Your task to perform on an android device: toggle javascript in the chrome app Image 0: 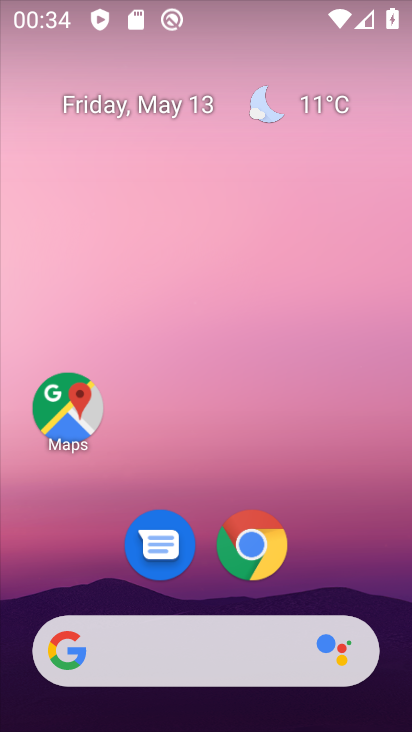
Step 0: click (260, 551)
Your task to perform on an android device: toggle javascript in the chrome app Image 1: 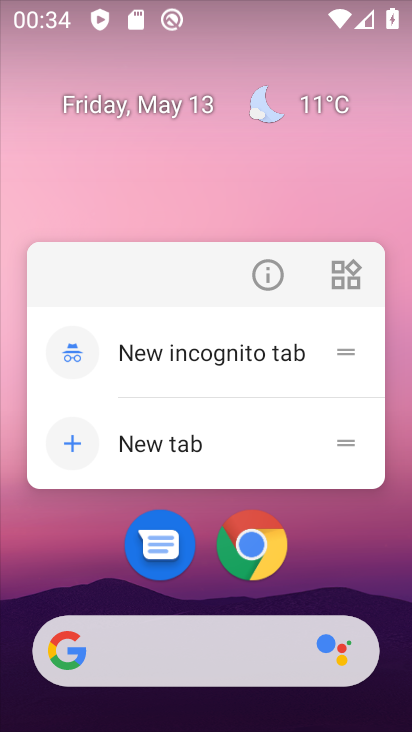
Step 1: click (267, 555)
Your task to perform on an android device: toggle javascript in the chrome app Image 2: 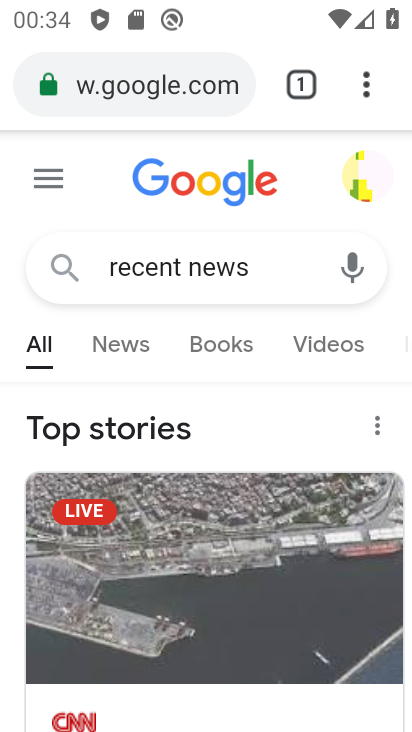
Step 2: drag from (360, 90) to (248, 616)
Your task to perform on an android device: toggle javascript in the chrome app Image 3: 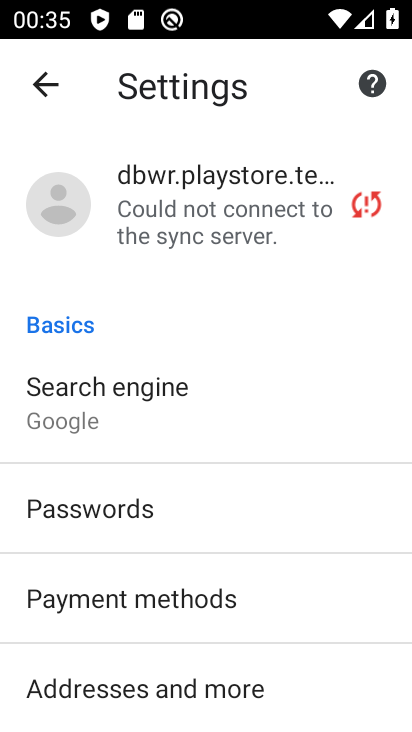
Step 3: drag from (248, 616) to (256, 197)
Your task to perform on an android device: toggle javascript in the chrome app Image 4: 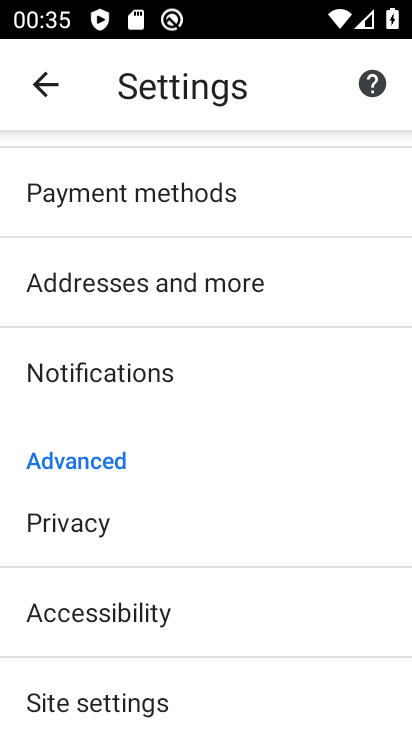
Step 4: click (175, 704)
Your task to perform on an android device: toggle javascript in the chrome app Image 5: 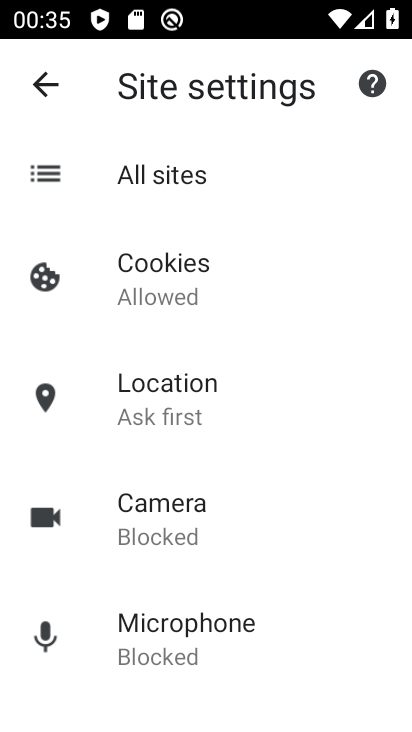
Step 5: drag from (233, 658) to (266, 250)
Your task to perform on an android device: toggle javascript in the chrome app Image 6: 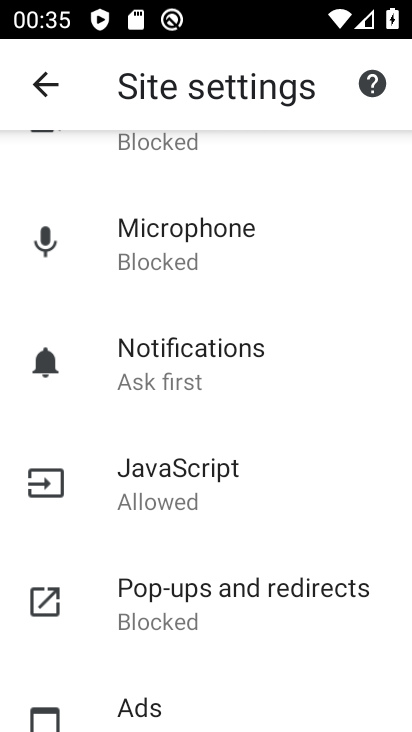
Step 6: click (210, 475)
Your task to perform on an android device: toggle javascript in the chrome app Image 7: 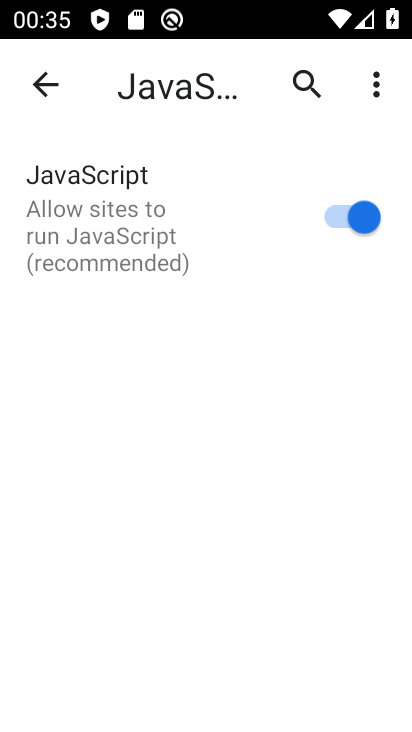
Step 7: click (353, 225)
Your task to perform on an android device: toggle javascript in the chrome app Image 8: 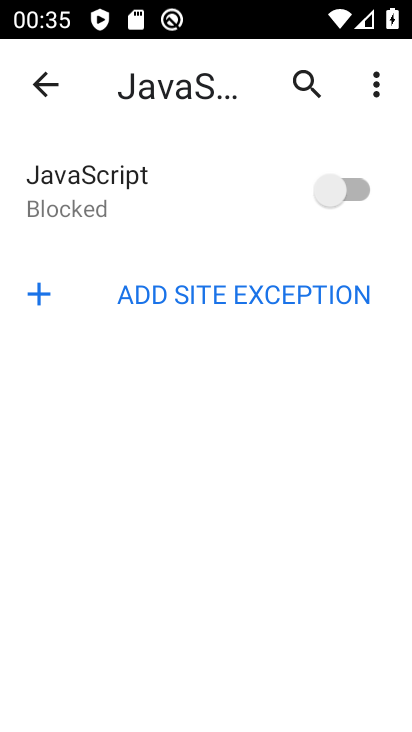
Step 8: task complete